Your task to perform on an android device: Toggle the flashlight Image 0: 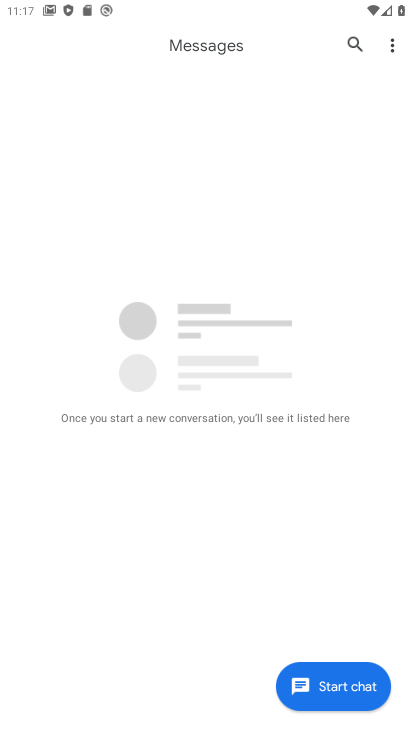
Step 0: press home button
Your task to perform on an android device: Toggle the flashlight Image 1: 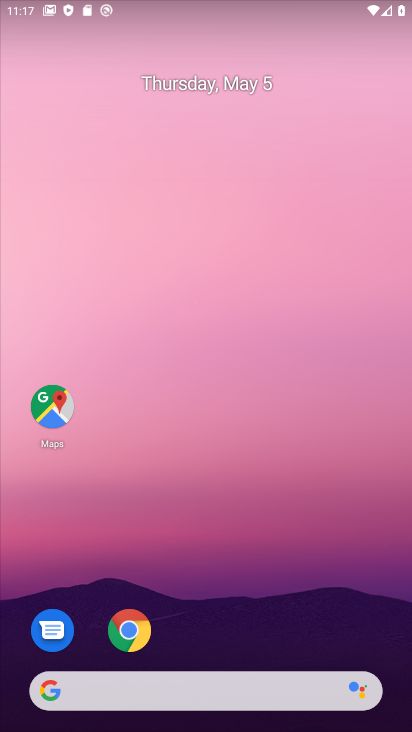
Step 1: task complete